Your task to perform on an android device: Open privacy settings Image 0: 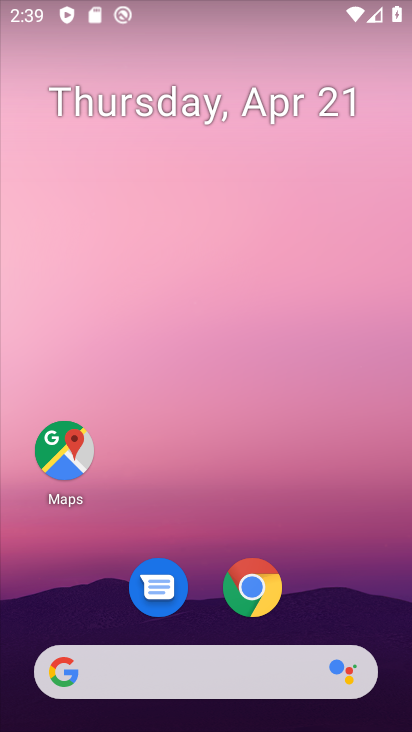
Step 0: drag from (281, 666) to (407, 444)
Your task to perform on an android device: Open privacy settings Image 1: 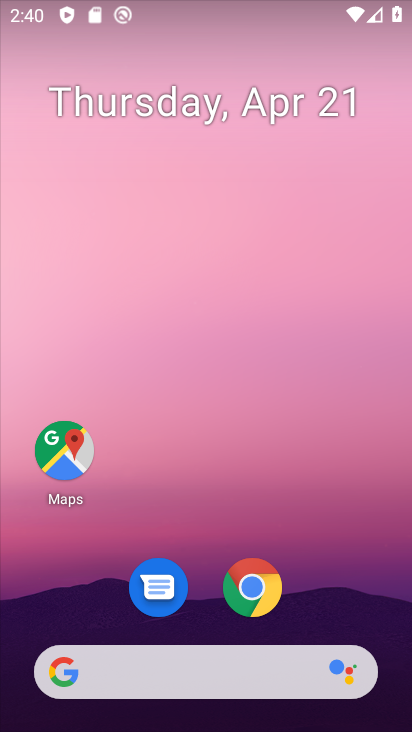
Step 1: drag from (266, 683) to (245, 122)
Your task to perform on an android device: Open privacy settings Image 2: 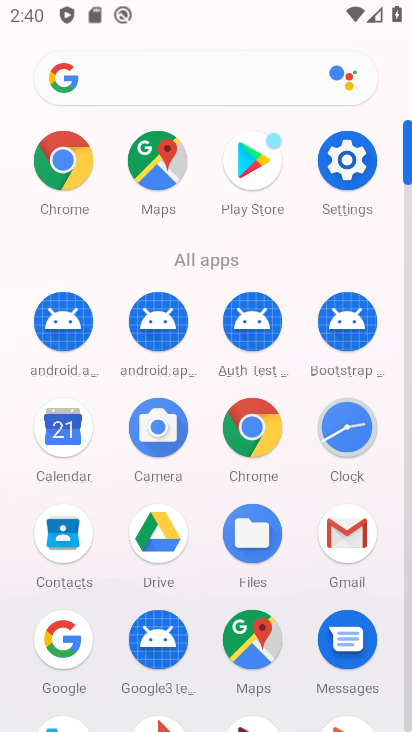
Step 2: click (244, 441)
Your task to perform on an android device: Open privacy settings Image 3: 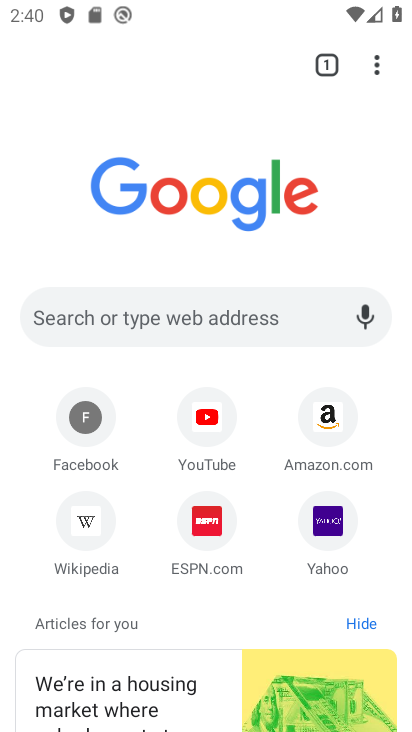
Step 3: drag from (382, 62) to (128, 553)
Your task to perform on an android device: Open privacy settings Image 4: 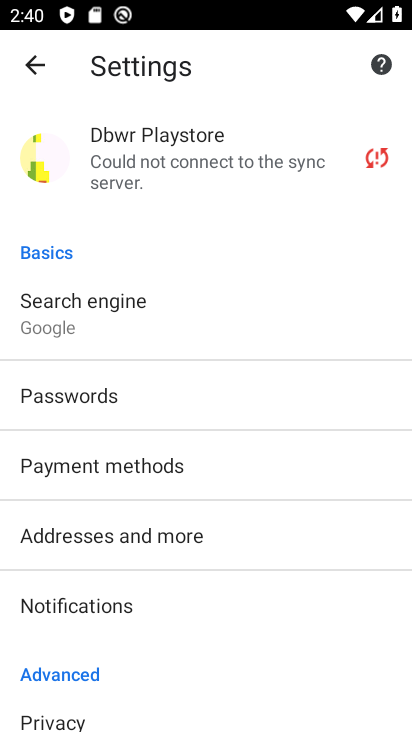
Step 4: drag from (142, 711) to (176, 487)
Your task to perform on an android device: Open privacy settings Image 5: 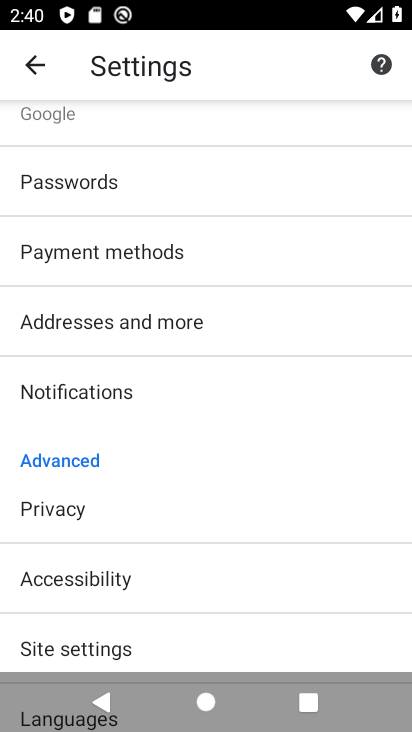
Step 5: click (83, 520)
Your task to perform on an android device: Open privacy settings Image 6: 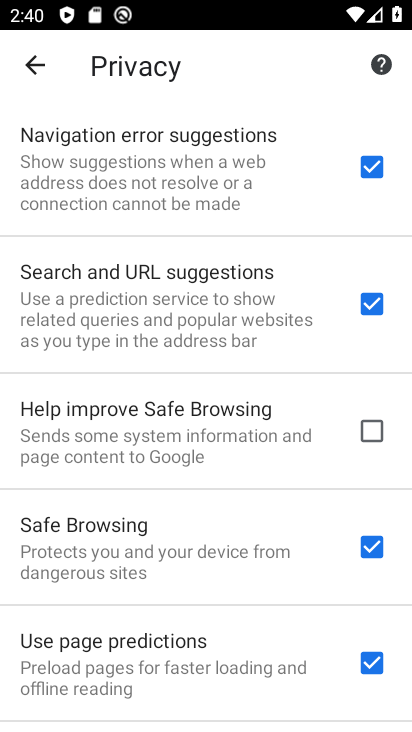
Step 6: task complete